Your task to perform on an android device: What is the news today? Image 0: 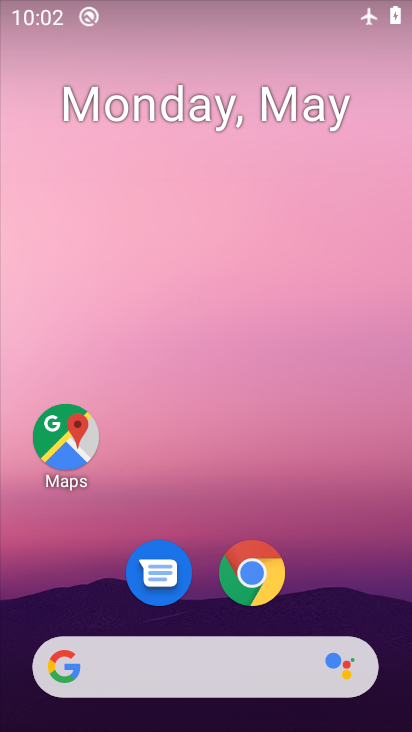
Step 0: click (173, 653)
Your task to perform on an android device: What is the news today? Image 1: 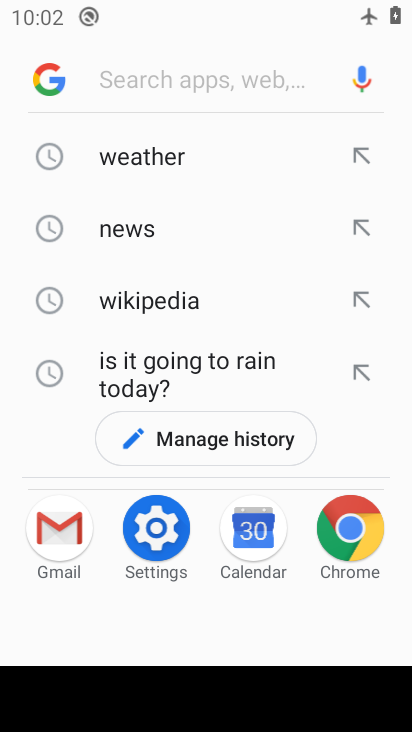
Step 1: click (145, 228)
Your task to perform on an android device: What is the news today? Image 2: 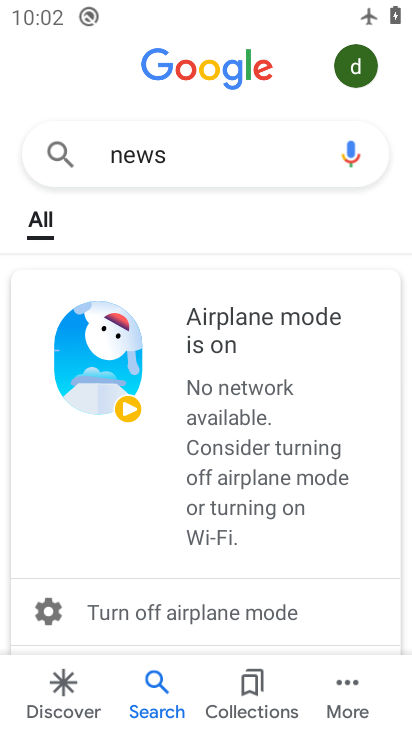
Step 2: drag from (334, 22) to (239, 552)
Your task to perform on an android device: What is the news today? Image 3: 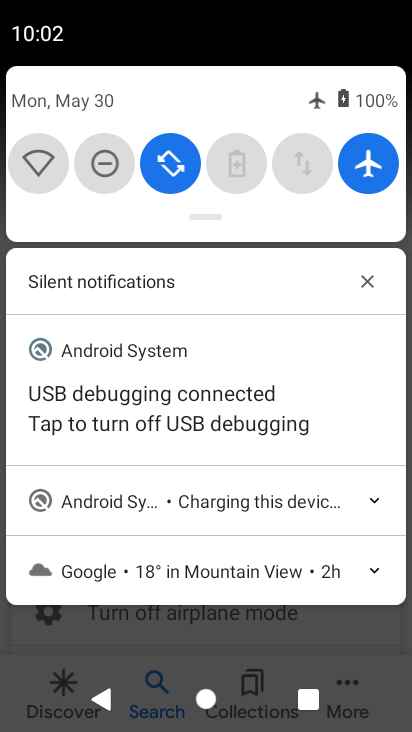
Step 3: click (362, 154)
Your task to perform on an android device: What is the news today? Image 4: 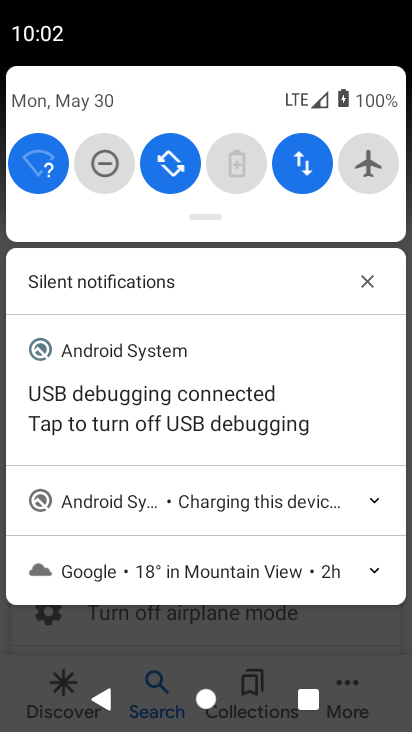
Step 4: drag from (146, 628) to (205, 89)
Your task to perform on an android device: What is the news today? Image 5: 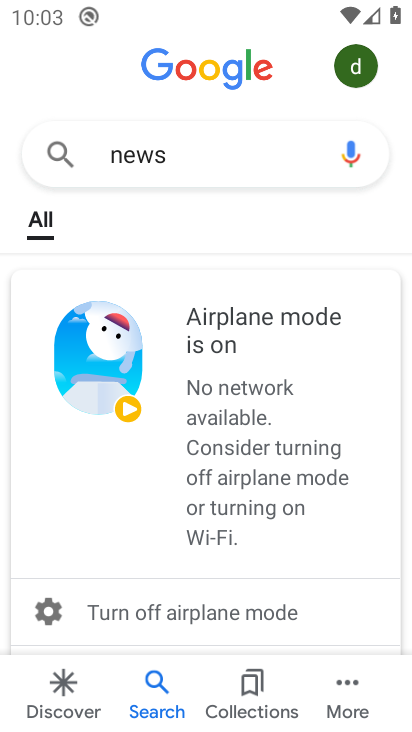
Step 5: drag from (205, 686) to (205, 164)
Your task to perform on an android device: What is the news today? Image 6: 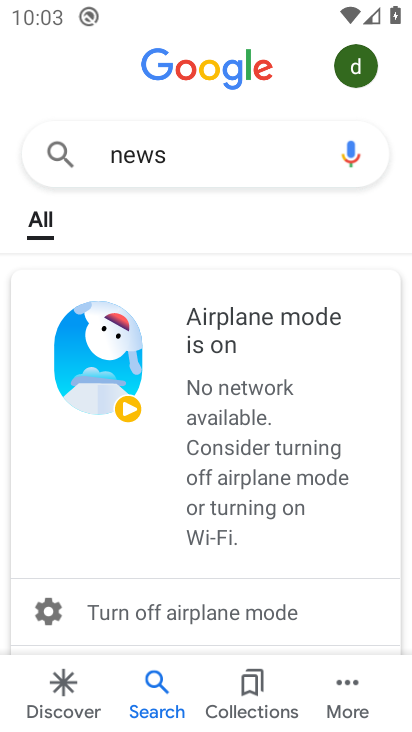
Step 6: drag from (160, 509) to (237, 64)
Your task to perform on an android device: What is the news today? Image 7: 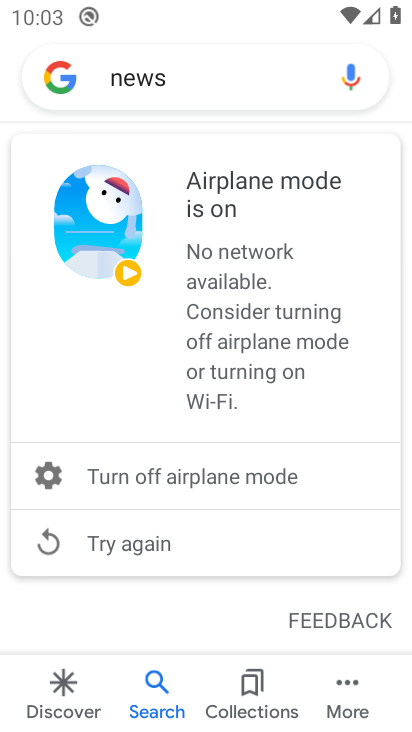
Step 7: click (92, 541)
Your task to perform on an android device: What is the news today? Image 8: 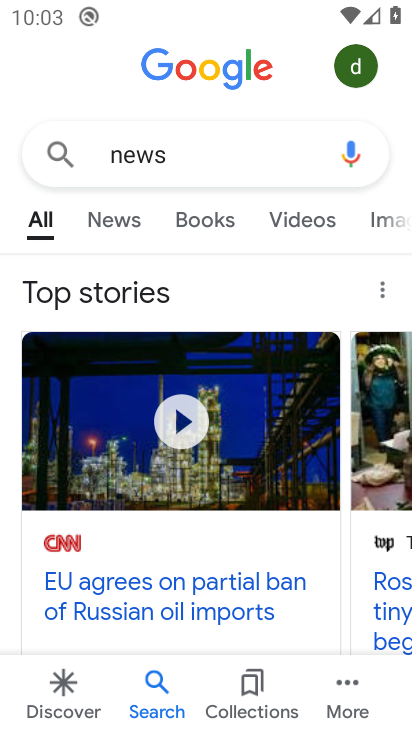
Step 8: task complete